Your task to perform on an android device: What's the weather going to be tomorrow? Image 0: 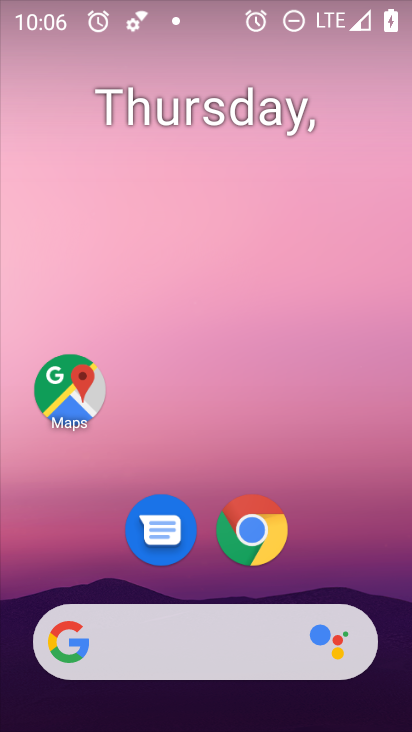
Step 0: drag from (352, 518) to (200, 20)
Your task to perform on an android device: What's the weather going to be tomorrow? Image 1: 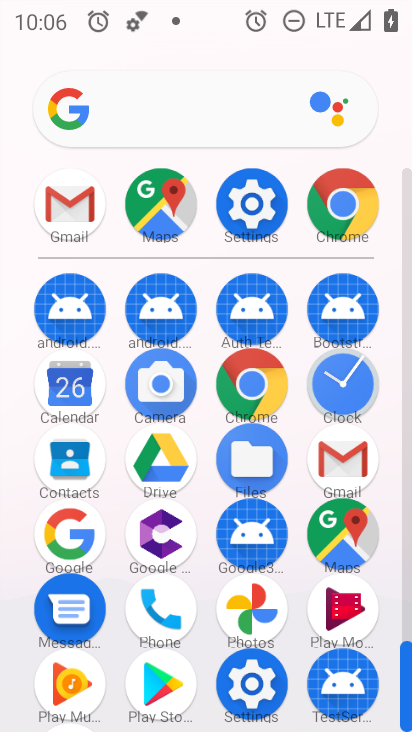
Step 1: drag from (12, 586) to (15, 293)
Your task to perform on an android device: What's the weather going to be tomorrow? Image 2: 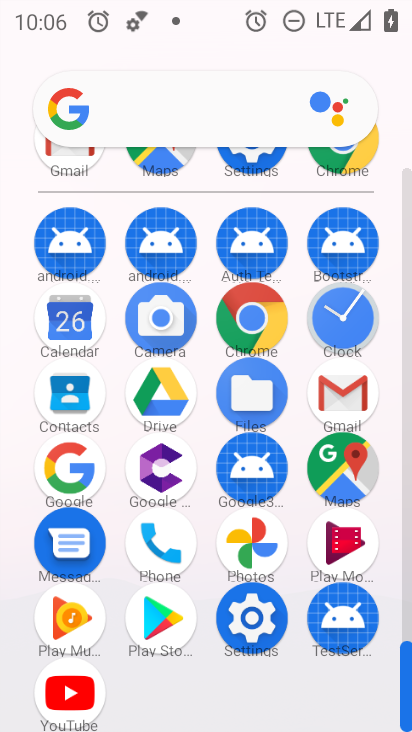
Step 2: click (248, 313)
Your task to perform on an android device: What's the weather going to be tomorrow? Image 3: 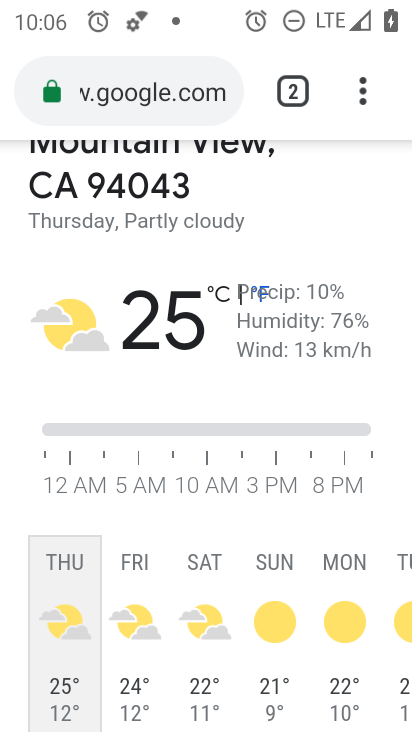
Step 3: click (98, 84)
Your task to perform on an android device: What's the weather going to be tomorrow? Image 4: 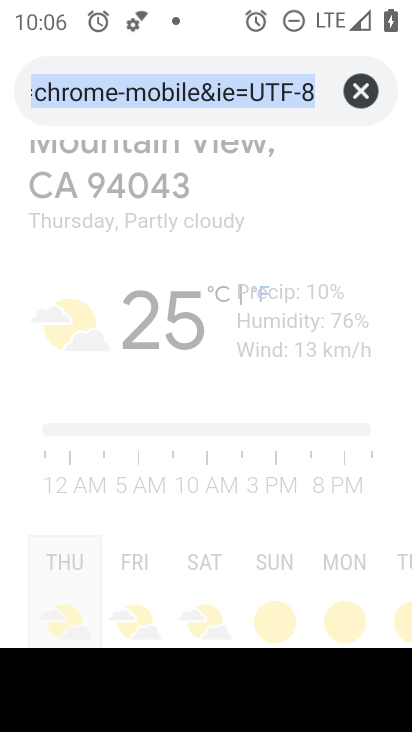
Step 4: click (362, 84)
Your task to perform on an android device: What's the weather going to be tomorrow? Image 5: 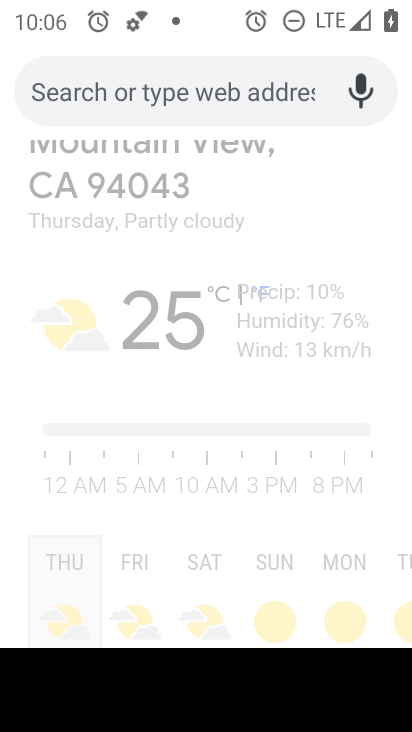
Step 5: type "What's the weather going to be tomorrow?"
Your task to perform on an android device: What's the weather going to be tomorrow? Image 6: 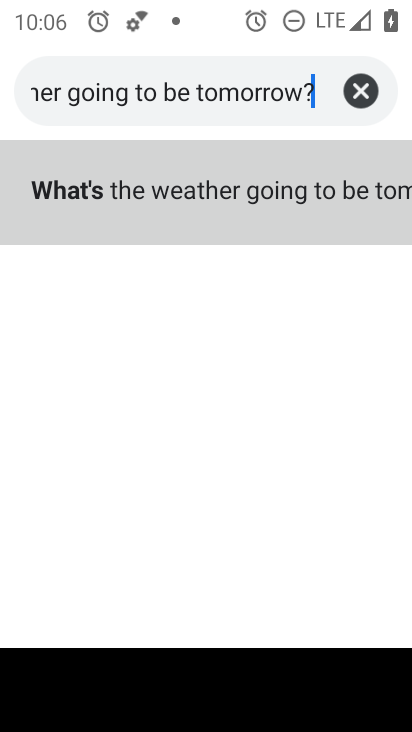
Step 6: type ""
Your task to perform on an android device: What's the weather going to be tomorrow? Image 7: 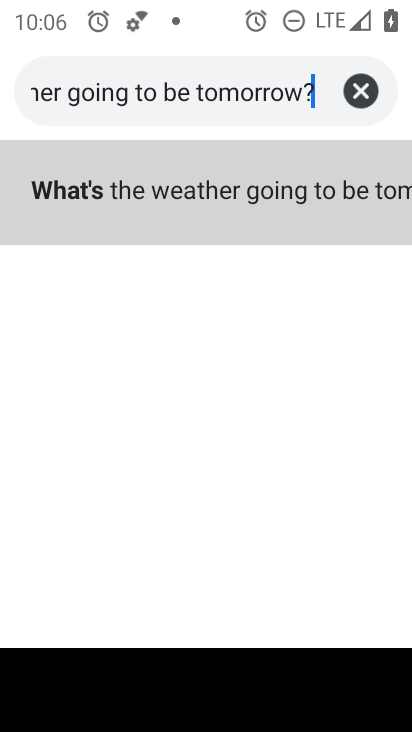
Step 7: click (129, 183)
Your task to perform on an android device: What's the weather going to be tomorrow? Image 8: 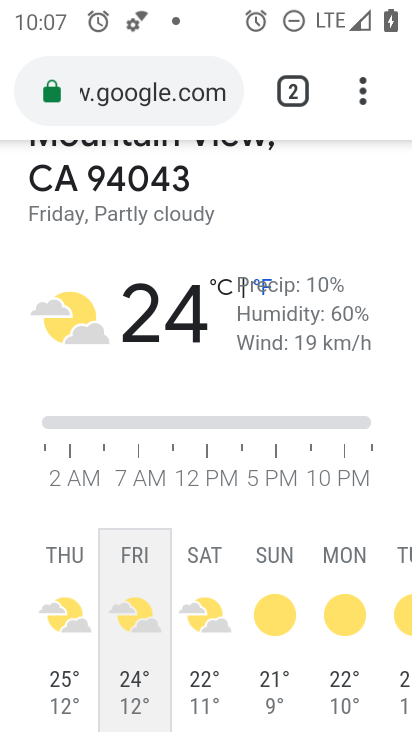
Step 8: task complete